Your task to perform on an android device: turn on wifi Image 0: 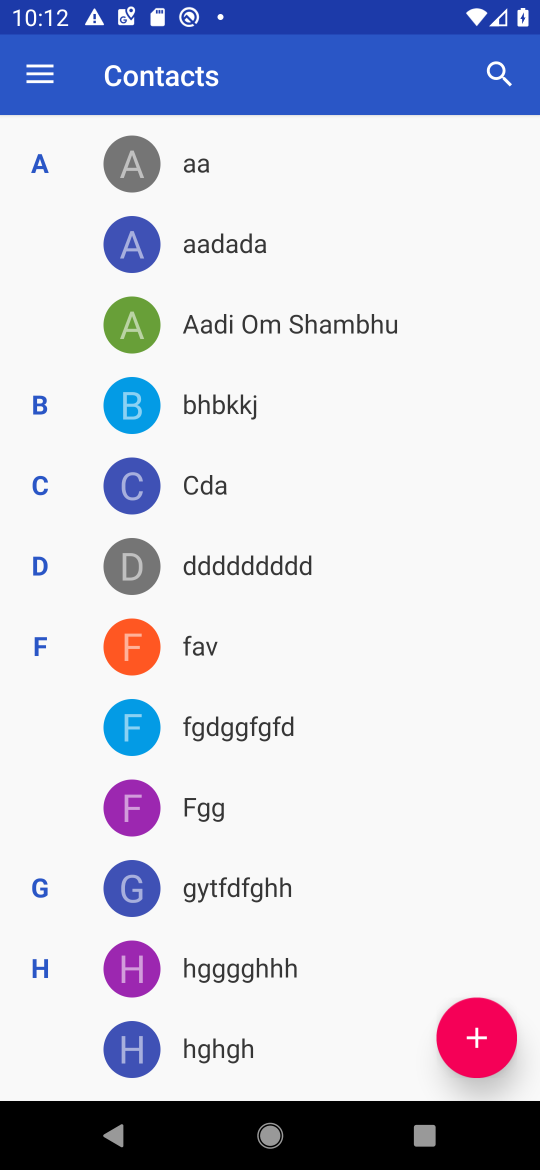
Step 0: press home button
Your task to perform on an android device: turn on wifi Image 1: 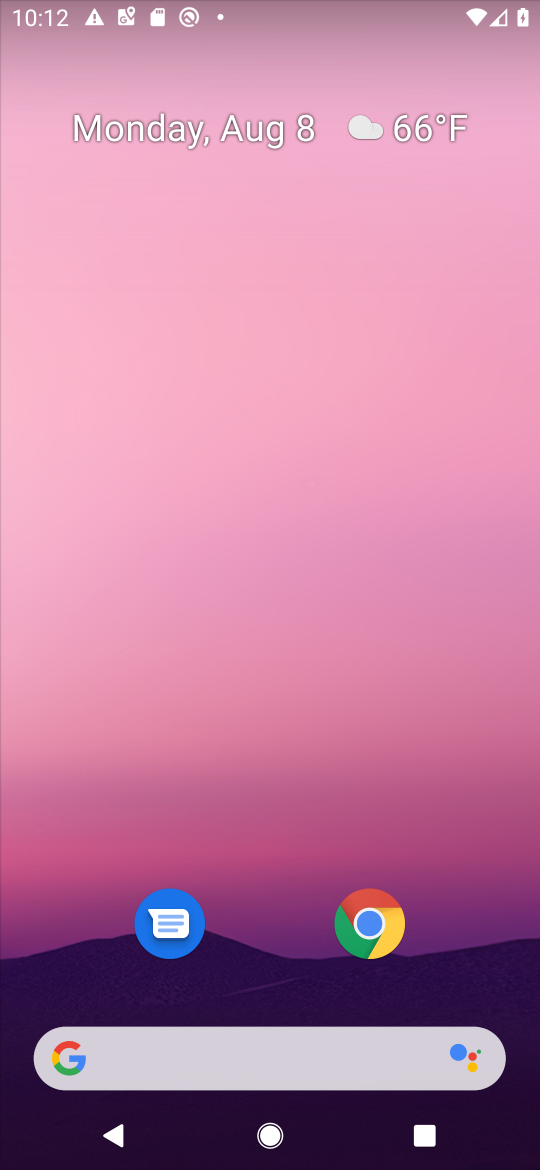
Step 1: drag from (7, 1102) to (226, 30)
Your task to perform on an android device: turn on wifi Image 2: 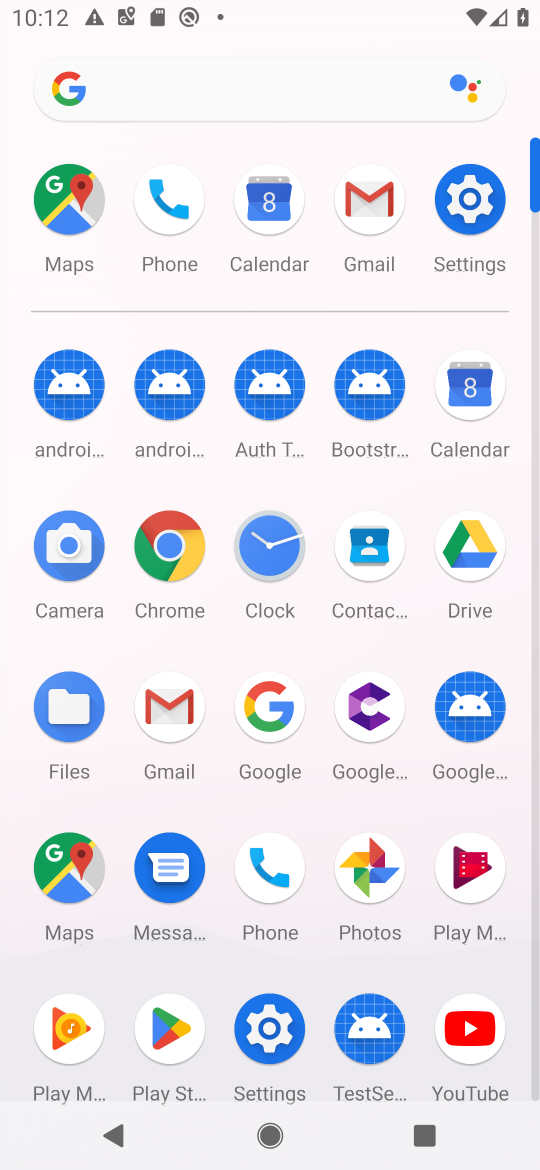
Step 2: click (270, 1034)
Your task to perform on an android device: turn on wifi Image 3: 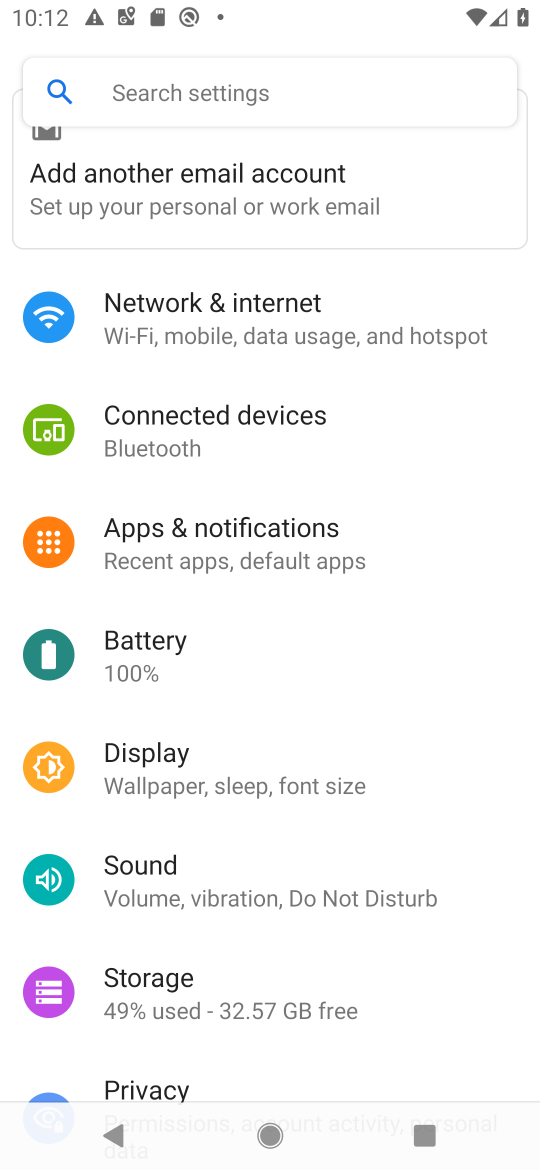
Step 3: click (194, 335)
Your task to perform on an android device: turn on wifi Image 4: 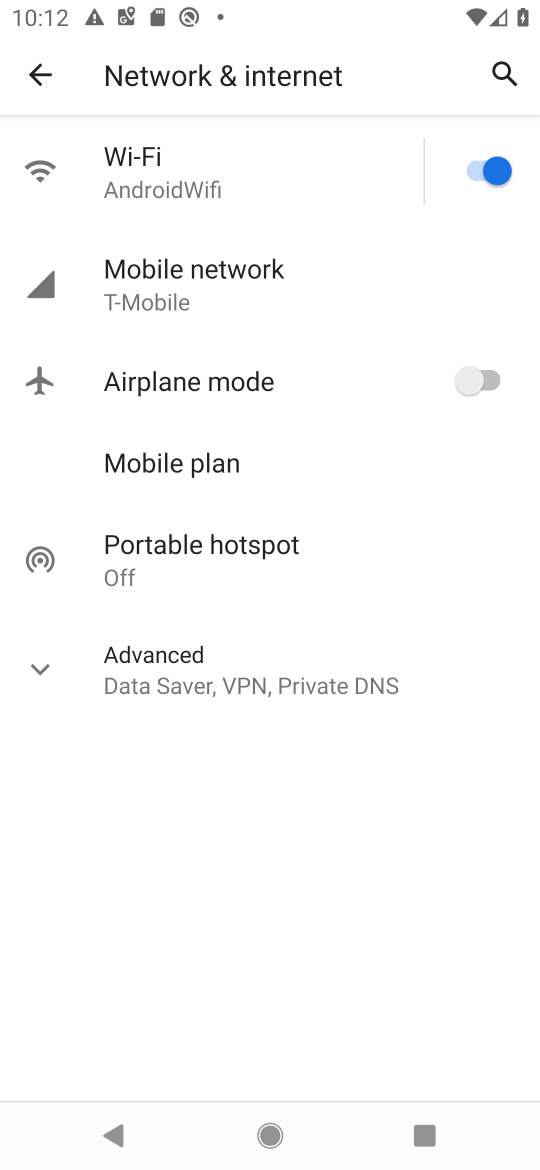
Step 4: task complete